Your task to perform on an android device: find photos in the google photos app Image 0: 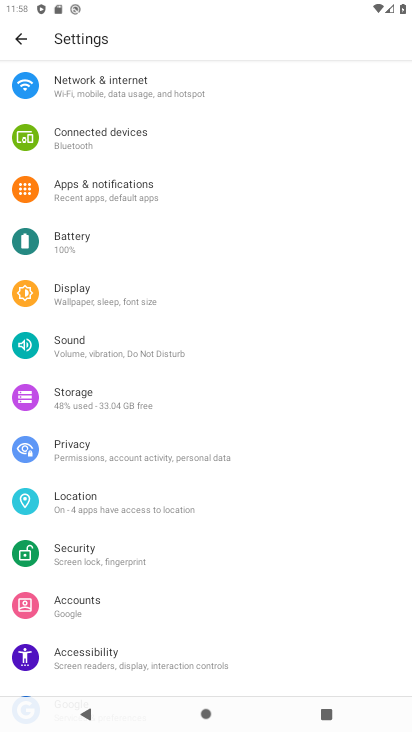
Step 0: press home button
Your task to perform on an android device: find photos in the google photos app Image 1: 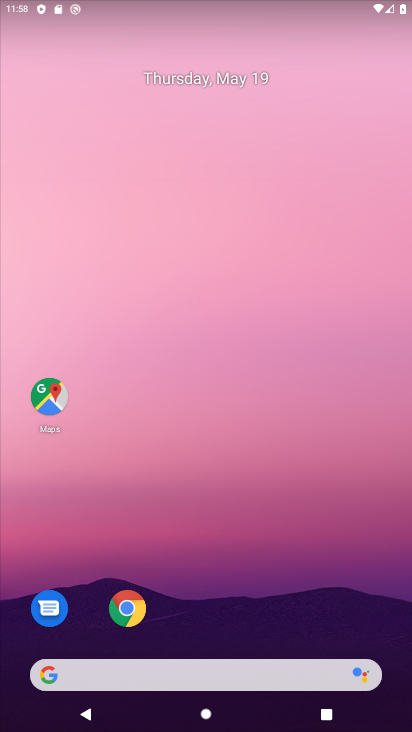
Step 1: drag from (346, 569) to (262, 93)
Your task to perform on an android device: find photos in the google photos app Image 2: 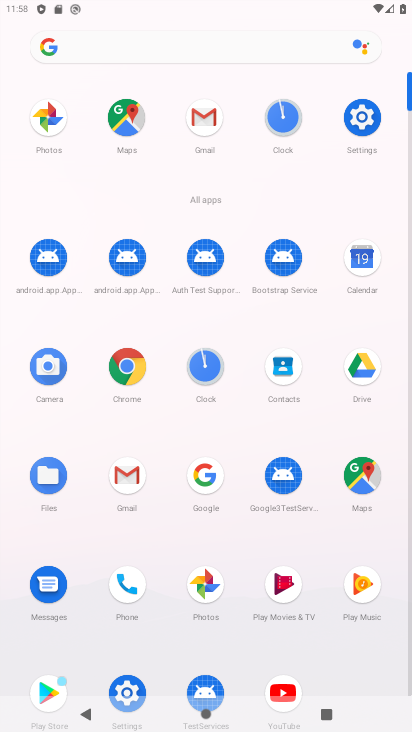
Step 2: click (198, 576)
Your task to perform on an android device: find photos in the google photos app Image 3: 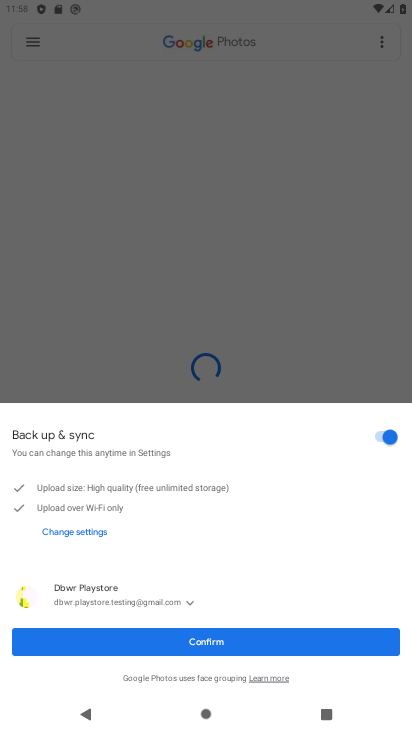
Step 3: click (200, 631)
Your task to perform on an android device: find photos in the google photos app Image 4: 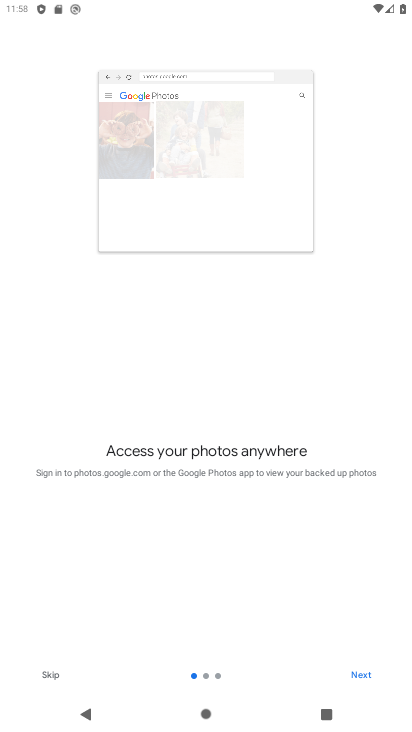
Step 4: click (366, 669)
Your task to perform on an android device: find photos in the google photos app Image 5: 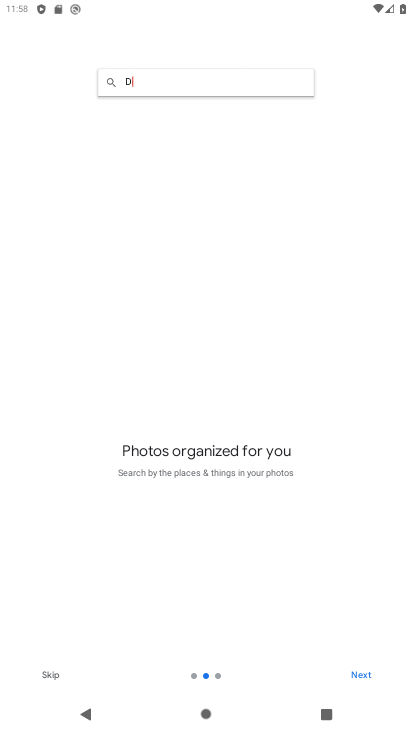
Step 5: click (366, 669)
Your task to perform on an android device: find photos in the google photos app Image 6: 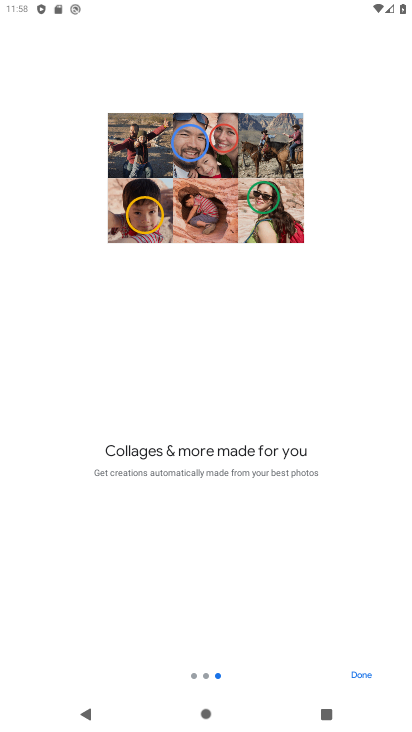
Step 6: click (366, 669)
Your task to perform on an android device: find photos in the google photos app Image 7: 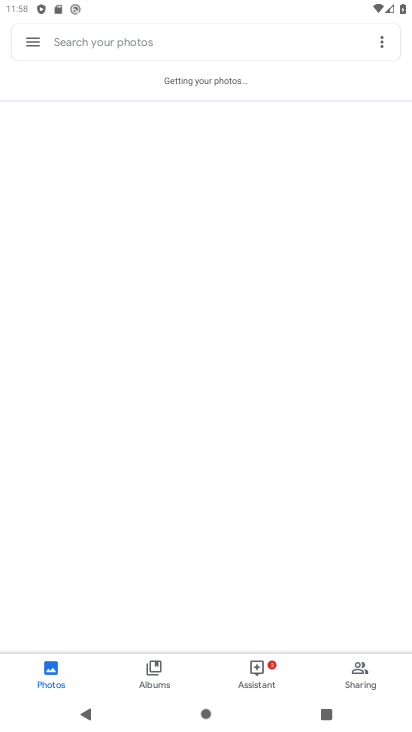
Step 7: click (277, 103)
Your task to perform on an android device: find photos in the google photos app Image 8: 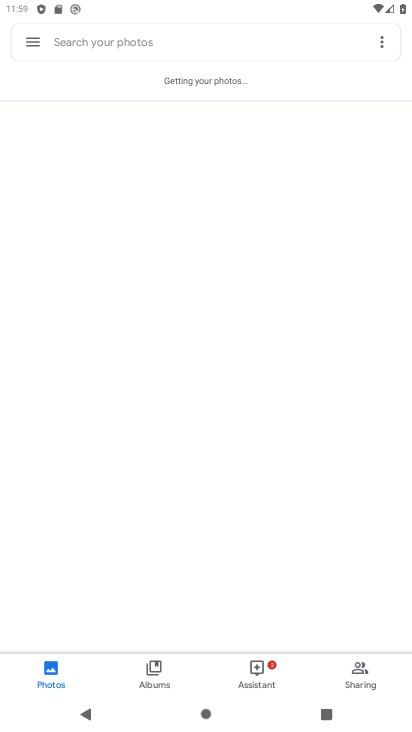
Step 8: task complete